Your task to perform on an android device: Is it going to rain today? Image 0: 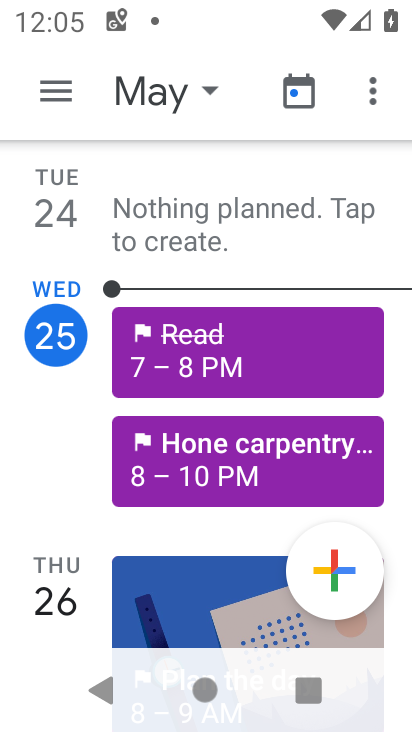
Step 0: press home button
Your task to perform on an android device: Is it going to rain today? Image 1: 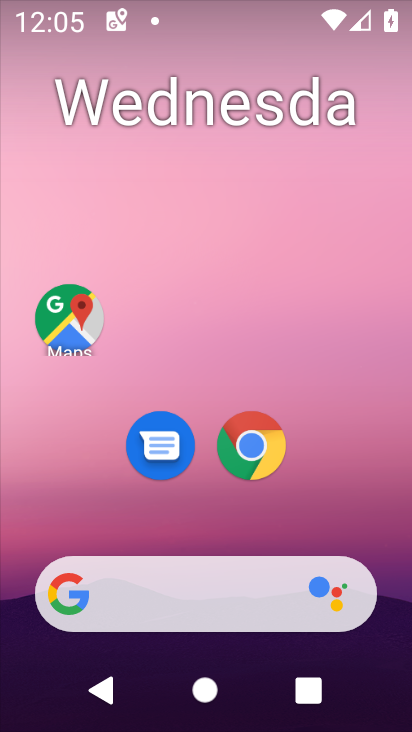
Step 1: drag from (225, 719) to (217, 178)
Your task to perform on an android device: Is it going to rain today? Image 2: 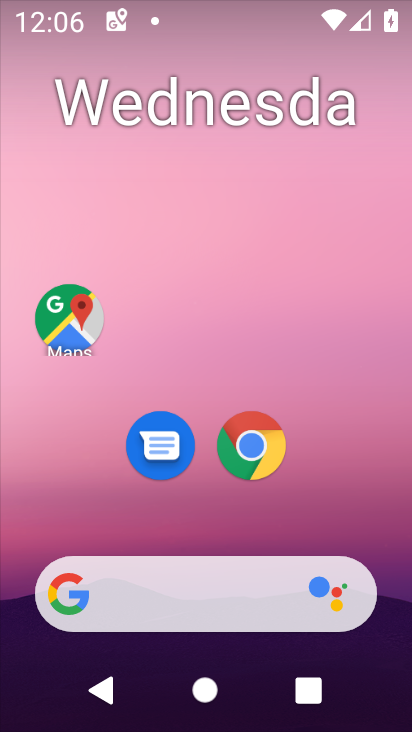
Step 2: click (227, 298)
Your task to perform on an android device: Is it going to rain today? Image 3: 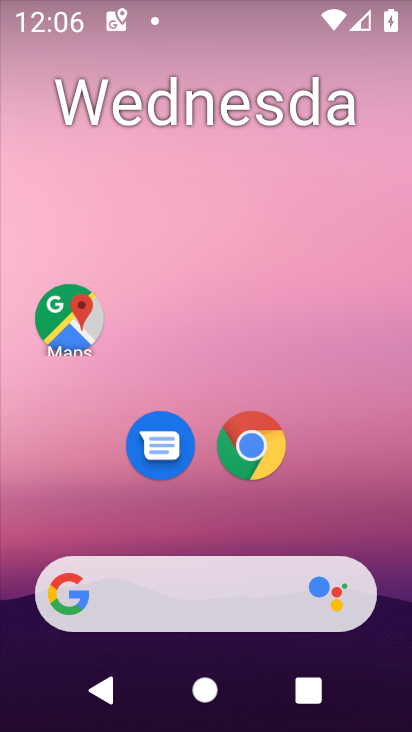
Step 3: drag from (193, 726) to (178, 55)
Your task to perform on an android device: Is it going to rain today? Image 4: 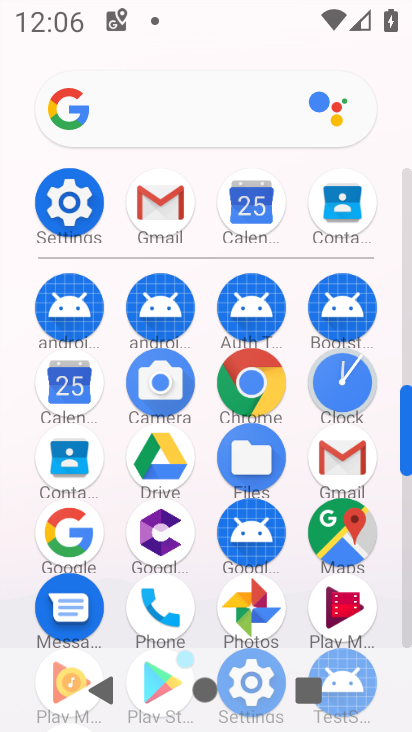
Step 4: click (62, 534)
Your task to perform on an android device: Is it going to rain today? Image 5: 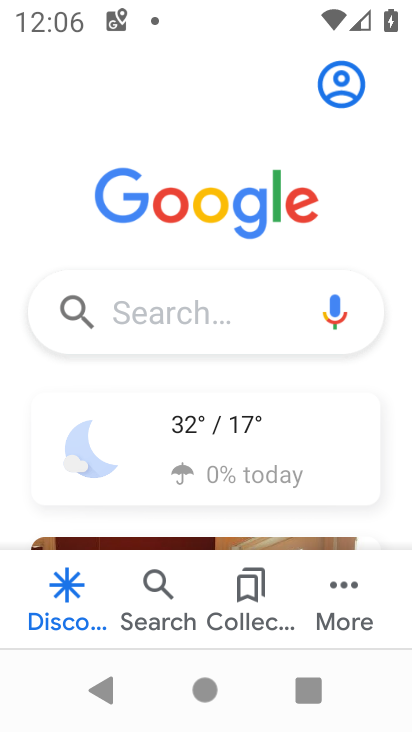
Step 5: click (179, 463)
Your task to perform on an android device: Is it going to rain today? Image 6: 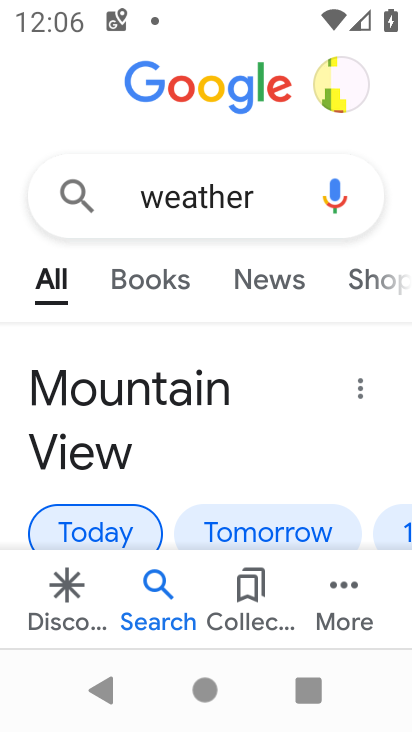
Step 6: click (103, 529)
Your task to perform on an android device: Is it going to rain today? Image 7: 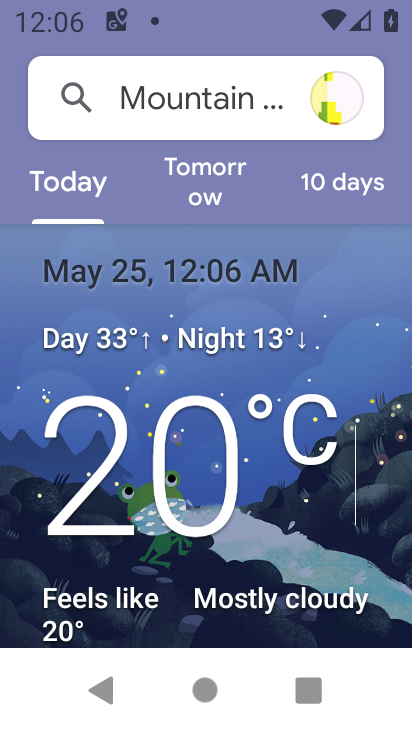
Step 7: task complete